Your task to perform on an android device: Open Google Image 0: 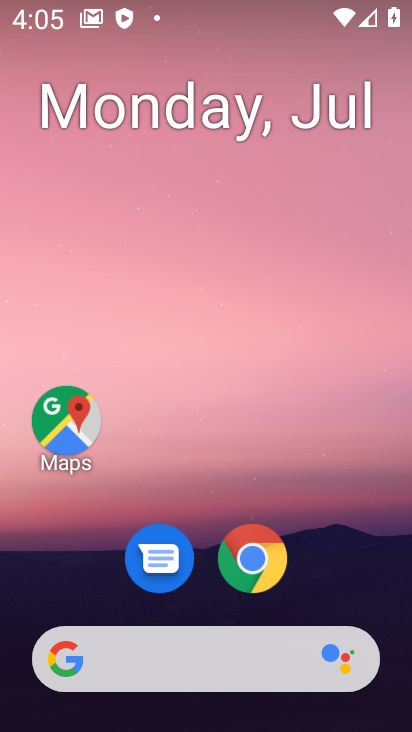
Step 0: drag from (111, 547) to (236, 4)
Your task to perform on an android device: Open Google Image 1: 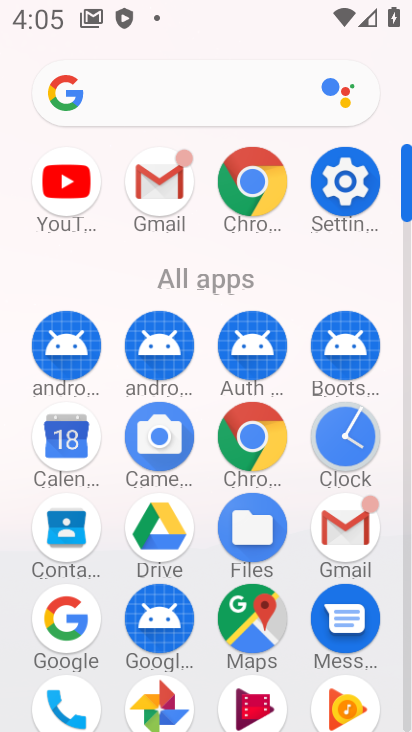
Step 1: click (82, 616)
Your task to perform on an android device: Open Google Image 2: 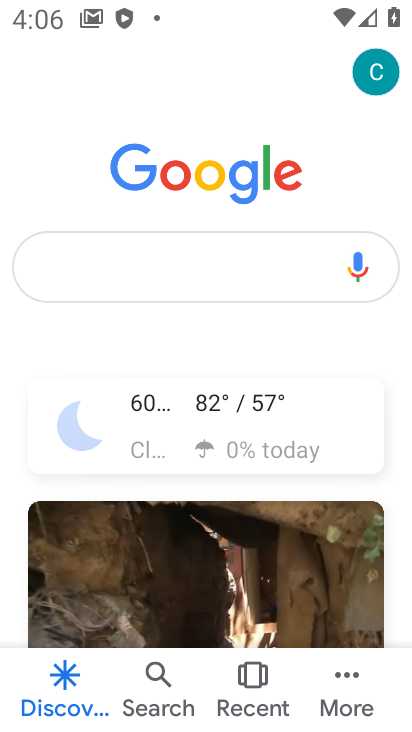
Step 2: task complete